Your task to perform on an android device: move an email to a new category in the gmail app Image 0: 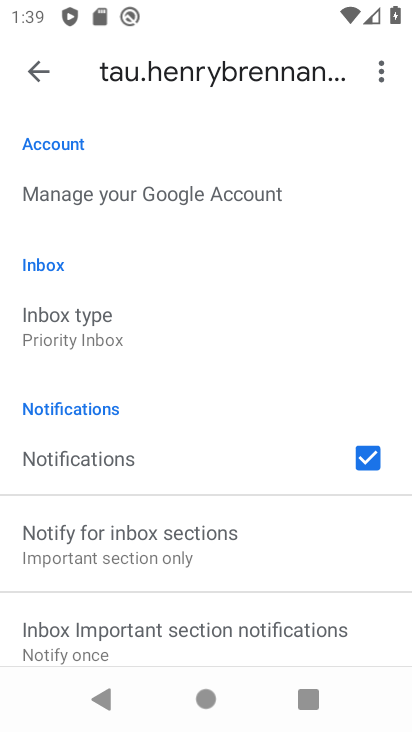
Step 0: press back button
Your task to perform on an android device: move an email to a new category in the gmail app Image 1: 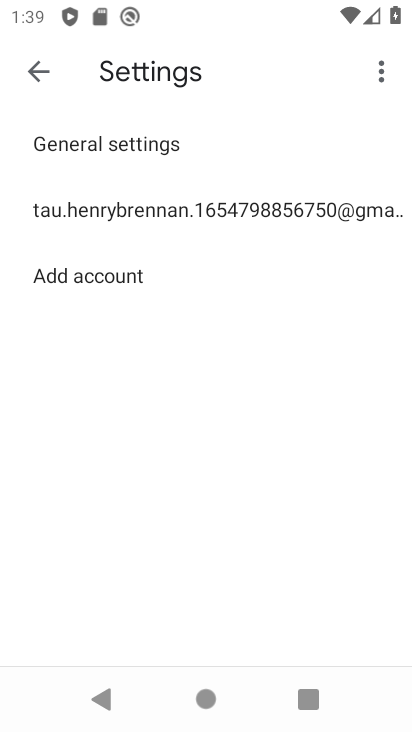
Step 1: press back button
Your task to perform on an android device: move an email to a new category in the gmail app Image 2: 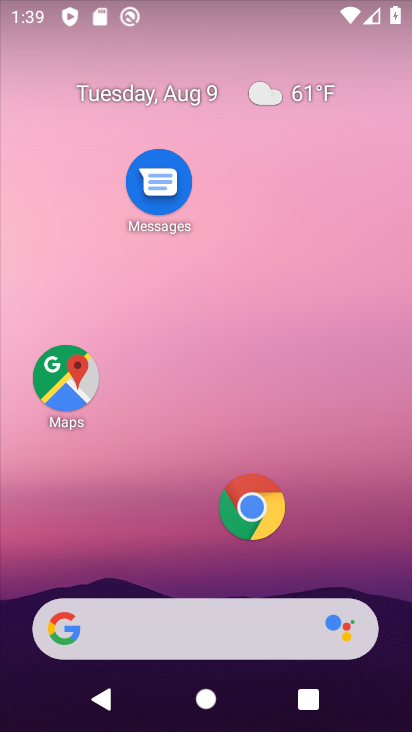
Step 2: drag from (173, 592) to (254, 102)
Your task to perform on an android device: move an email to a new category in the gmail app Image 3: 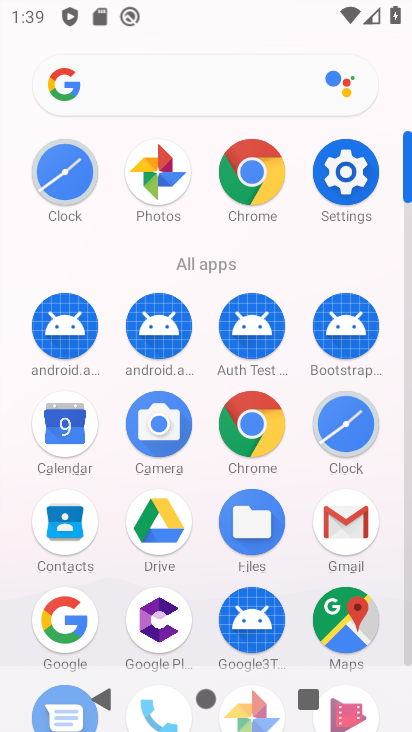
Step 3: click (346, 526)
Your task to perform on an android device: move an email to a new category in the gmail app Image 4: 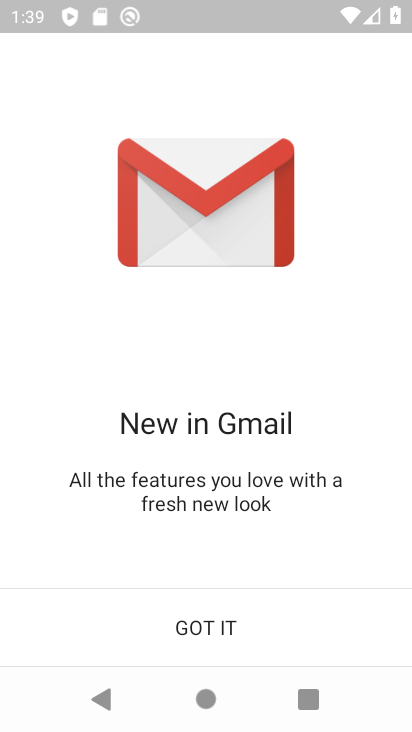
Step 4: click (205, 626)
Your task to perform on an android device: move an email to a new category in the gmail app Image 5: 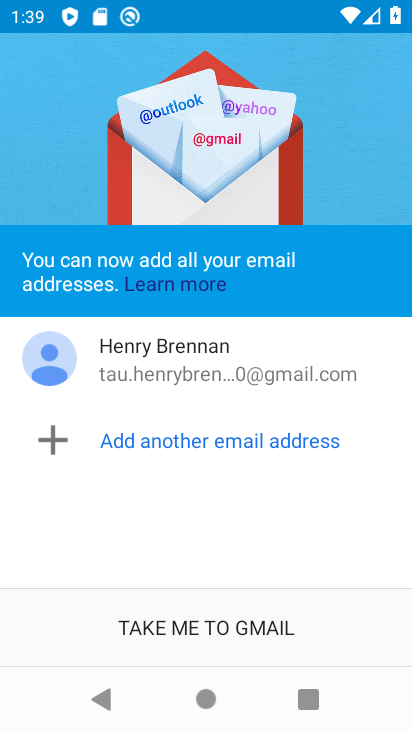
Step 5: click (204, 626)
Your task to perform on an android device: move an email to a new category in the gmail app Image 6: 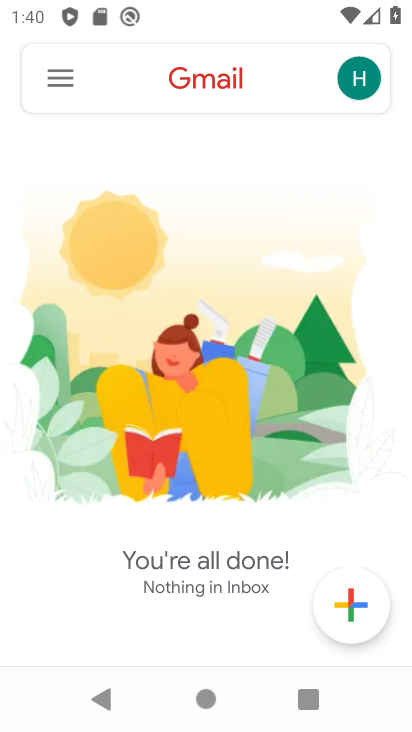
Step 6: click (49, 75)
Your task to perform on an android device: move an email to a new category in the gmail app Image 7: 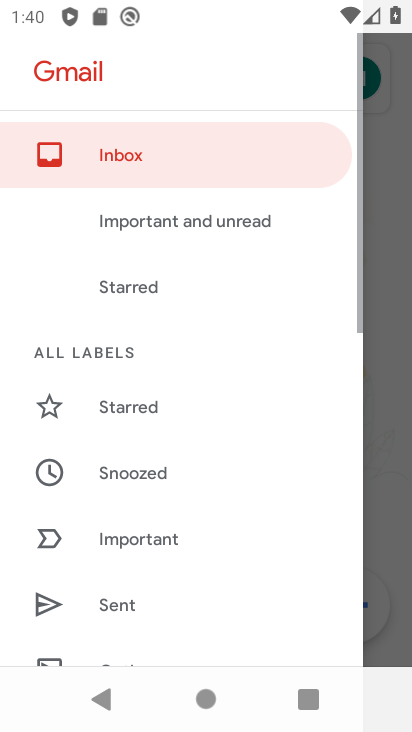
Step 7: drag from (213, 626) to (299, 59)
Your task to perform on an android device: move an email to a new category in the gmail app Image 8: 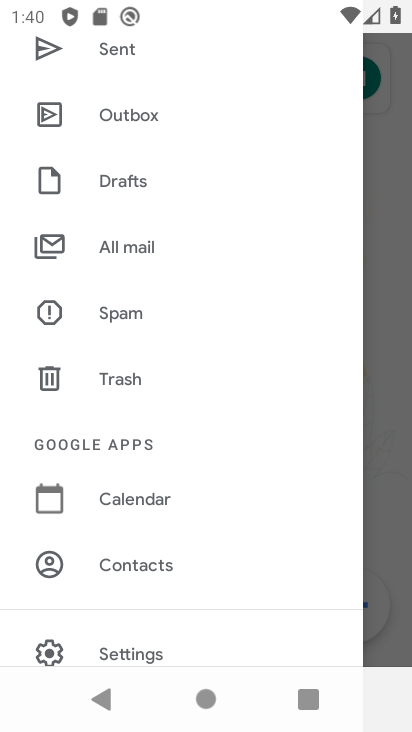
Step 8: drag from (132, 632) to (236, 187)
Your task to perform on an android device: move an email to a new category in the gmail app Image 9: 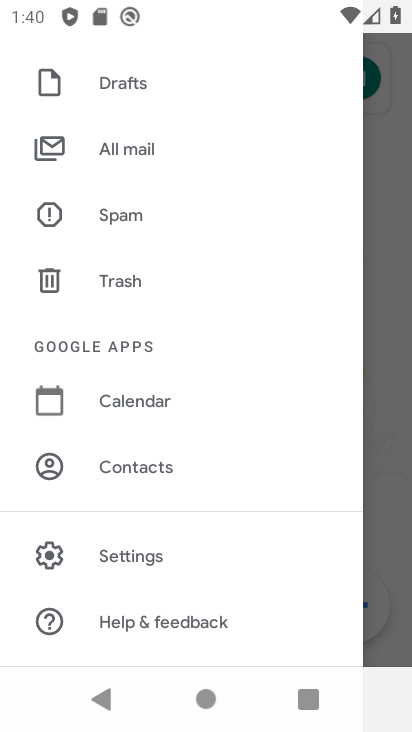
Step 9: click (116, 558)
Your task to perform on an android device: move an email to a new category in the gmail app Image 10: 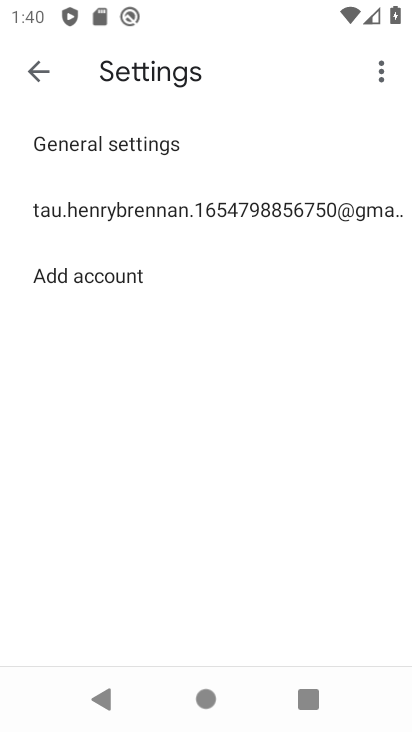
Step 10: click (180, 217)
Your task to perform on an android device: move an email to a new category in the gmail app Image 11: 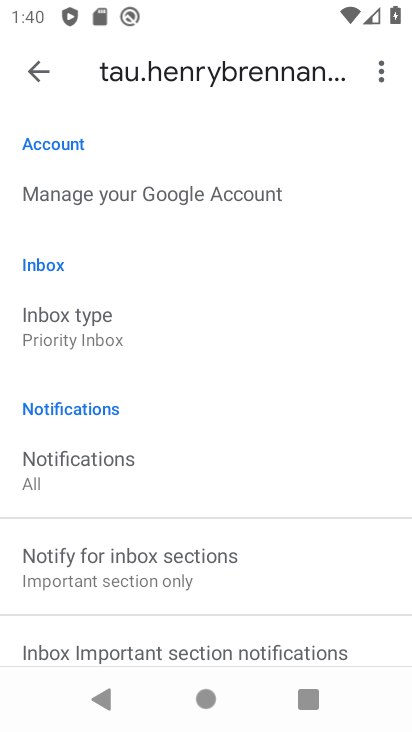
Step 11: task complete